Your task to perform on an android device: Toggle the flashlight Image 0: 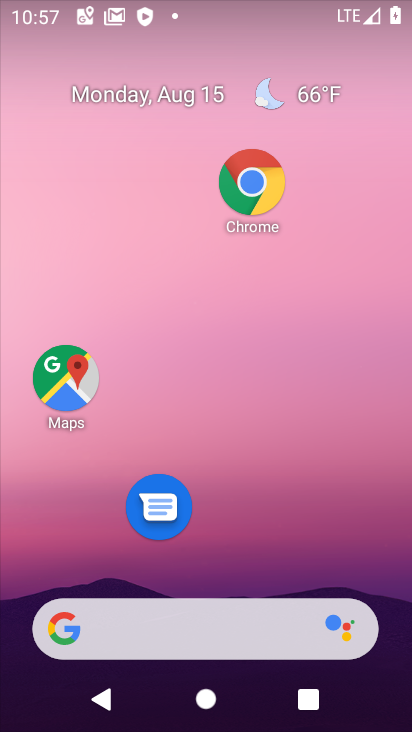
Step 0: drag from (331, 571) to (272, 6)
Your task to perform on an android device: Toggle the flashlight Image 1: 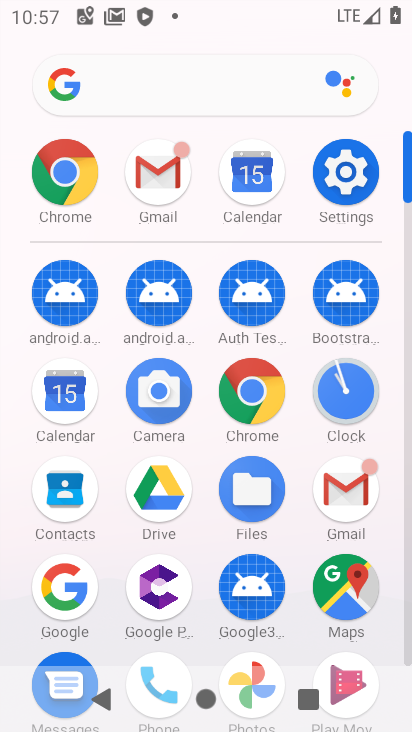
Step 1: click (369, 165)
Your task to perform on an android device: Toggle the flashlight Image 2: 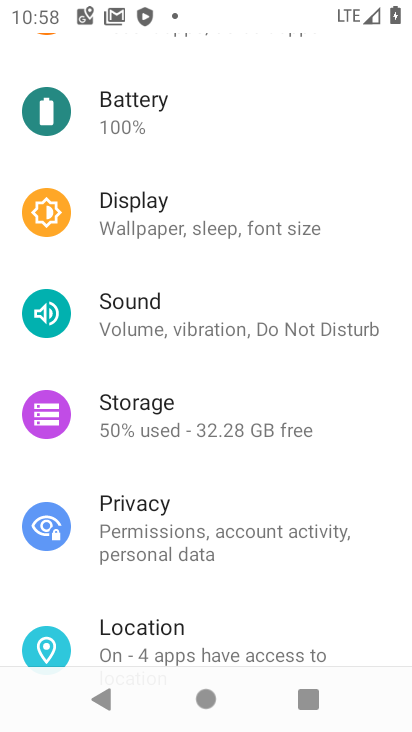
Step 2: task complete